Your task to perform on an android device: change the clock display to analog Image 0: 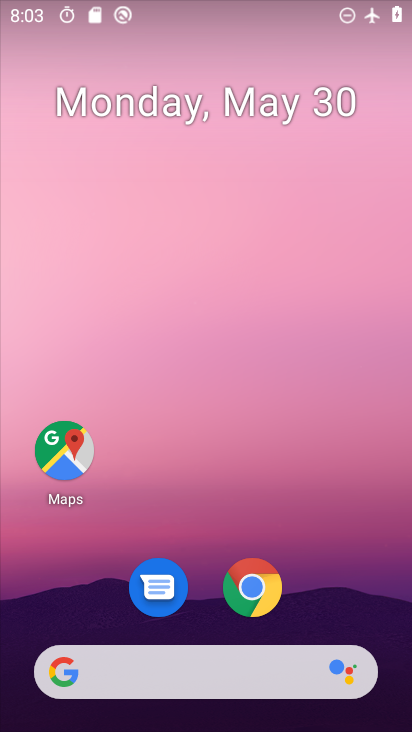
Step 0: drag from (348, 612) to (286, 8)
Your task to perform on an android device: change the clock display to analog Image 1: 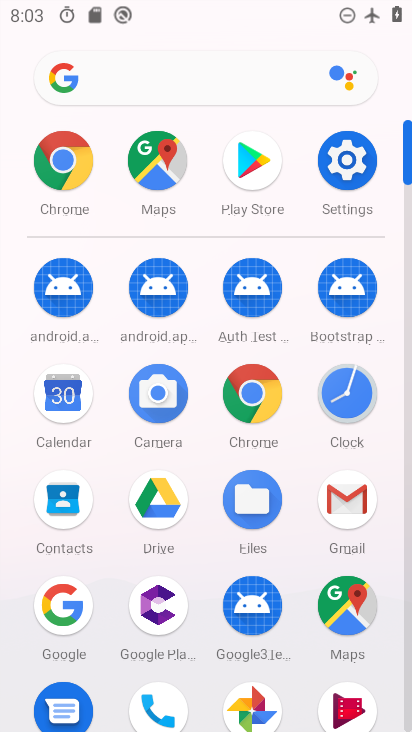
Step 1: drag from (13, 502) to (17, 158)
Your task to perform on an android device: change the clock display to analog Image 2: 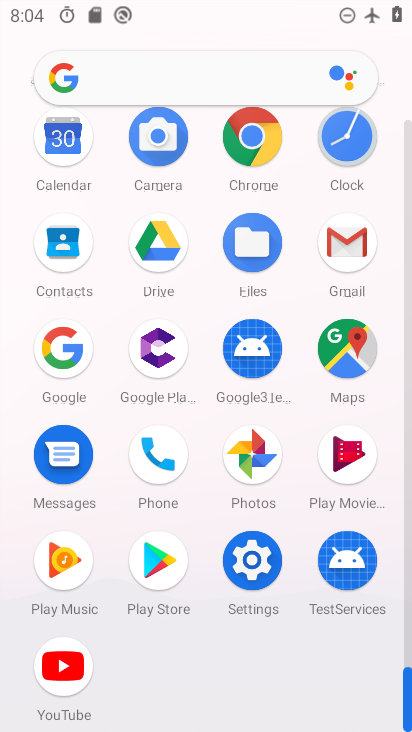
Step 2: click (351, 133)
Your task to perform on an android device: change the clock display to analog Image 3: 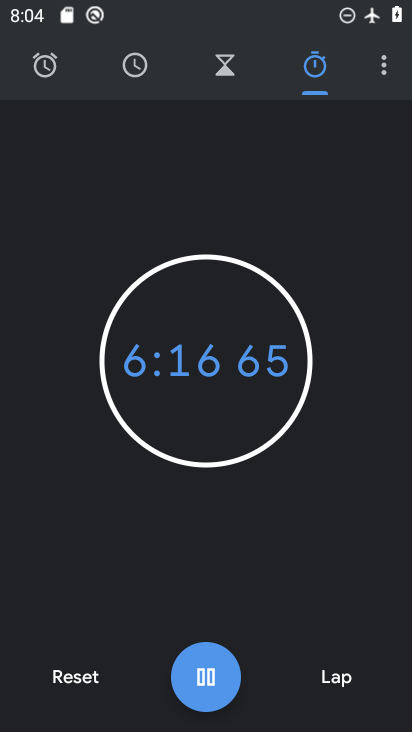
Step 3: drag from (387, 73) to (334, 125)
Your task to perform on an android device: change the clock display to analog Image 4: 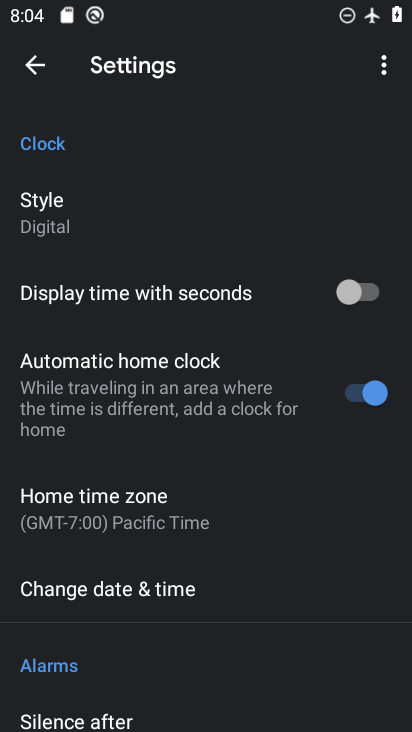
Step 4: click (88, 216)
Your task to perform on an android device: change the clock display to analog Image 5: 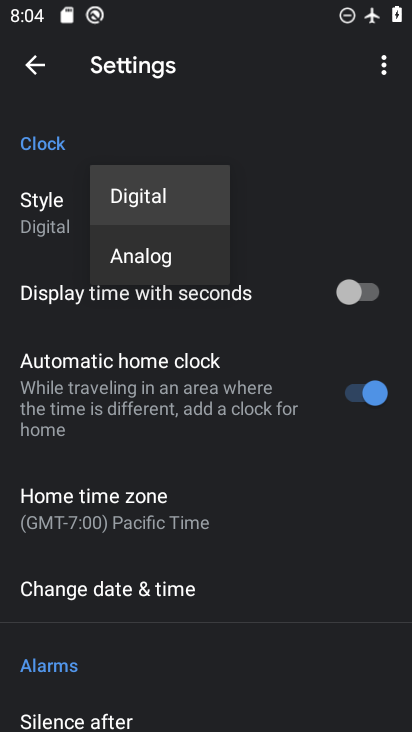
Step 5: click (154, 256)
Your task to perform on an android device: change the clock display to analog Image 6: 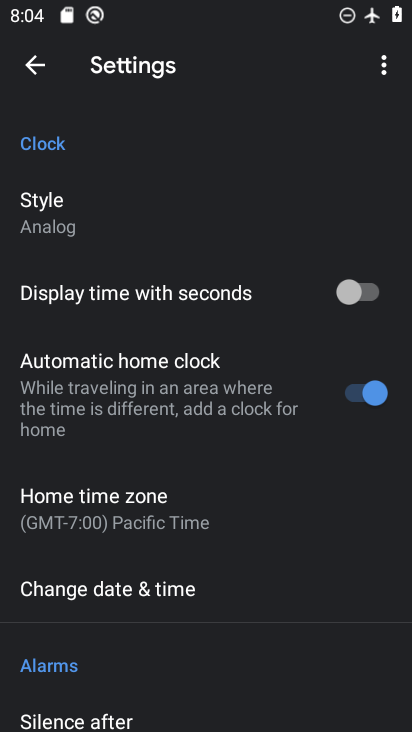
Step 6: task complete